Your task to perform on an android device: Show me productivity apps on the Play Store Image 0: 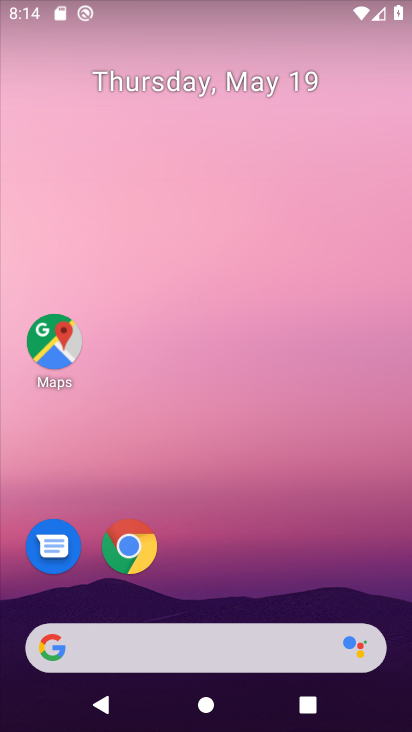
Step 0: drag from (255, 592) to (262, 203)
Your task to perform on an android device: Show me productivity apps on the Play Store Image 1: 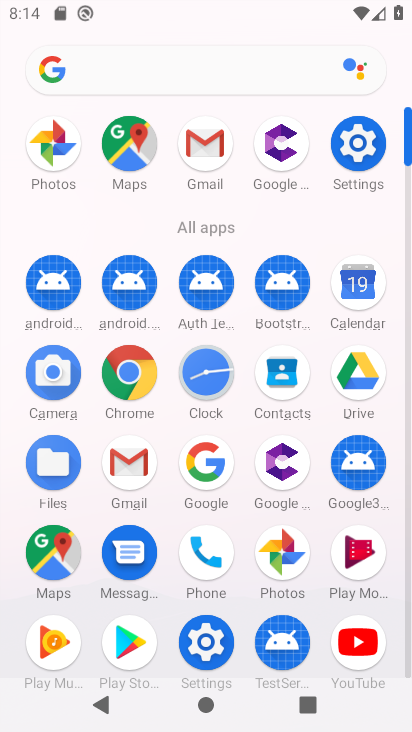
Step 1: click (131, 644)
Your task to perform on an android device: Show me productivity apps on the Play Store Image 2: 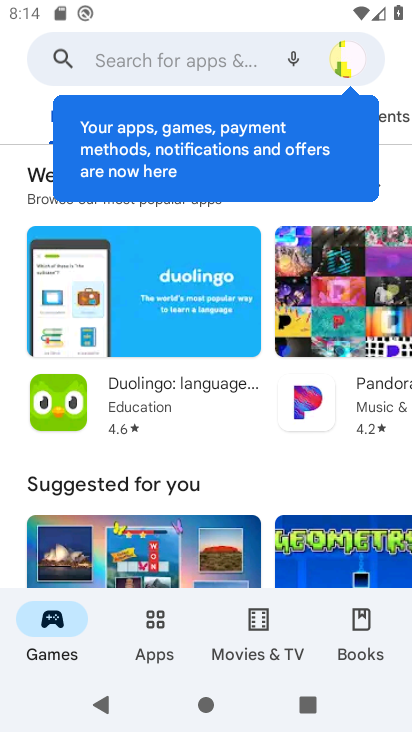
Step 2: click (159, 633)
Your task to perform on an android device: Show me productivity apps on the Play Store Image 3: 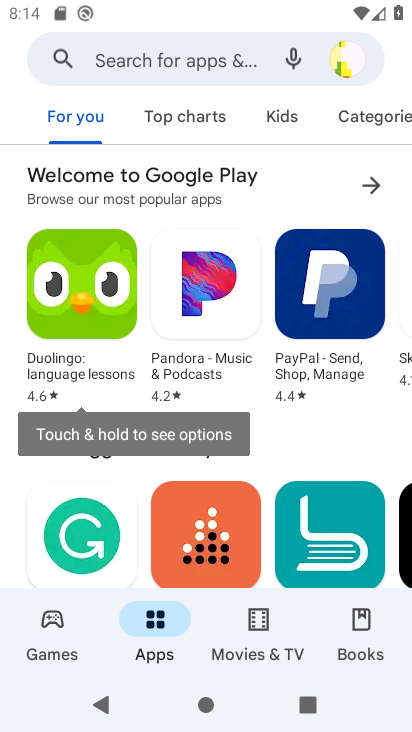
Step 3: drag from (210, 504) to (255, 184)
Your task to perform on an android device: Show me productivity apps on the Play Store Image 4: 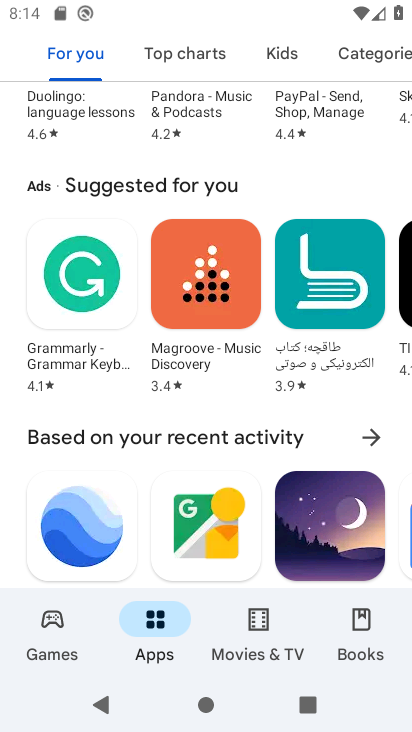
Step 4: drag from (221, 519) to (242, 244)
Your task to perform on an android device: Show me productivity apps on the Play Store Image 5: 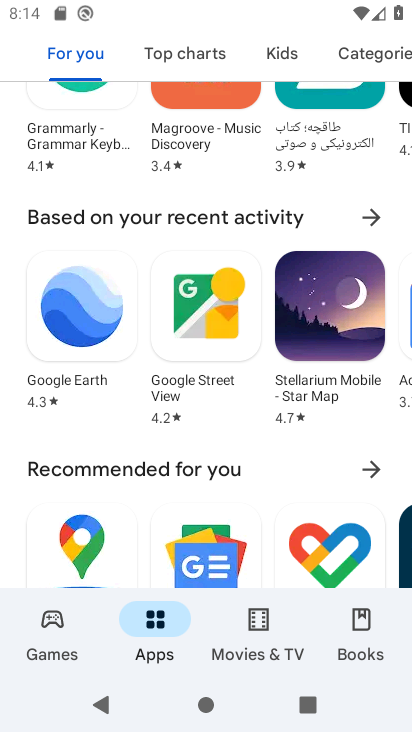
Step 5: drag from (206, 506) to (208, 131)
Your task to perform on an android device: Show me productivity apps on the Play Store Image 6: 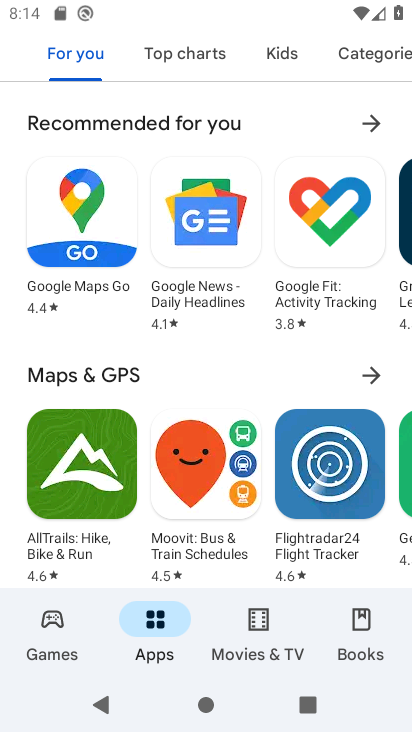
Step 6: click (213, 115)
Your task to perform on an android device: Show me productivity apps on the Play Store Image 7: 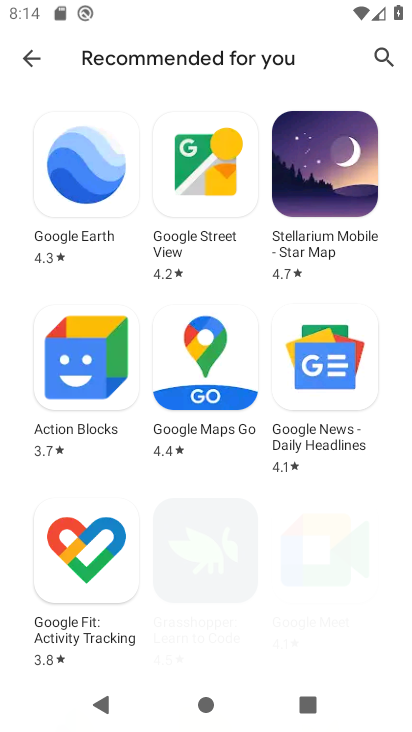
Step 7: drag from (206, 494) to (236, 291)
Your task to perform on an android device: Show me productivity apps on the Play Store Image 8: 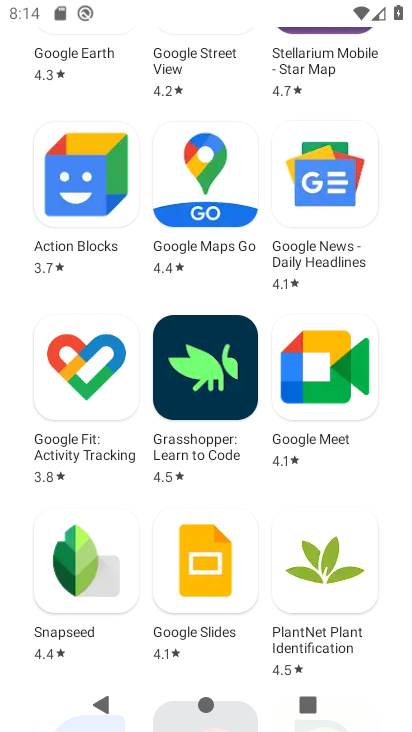
Step 8: drag from (83, 90) to (137, 557)
Your task to perform on an android device: Show me productivity apps on the Play Store Image 9: 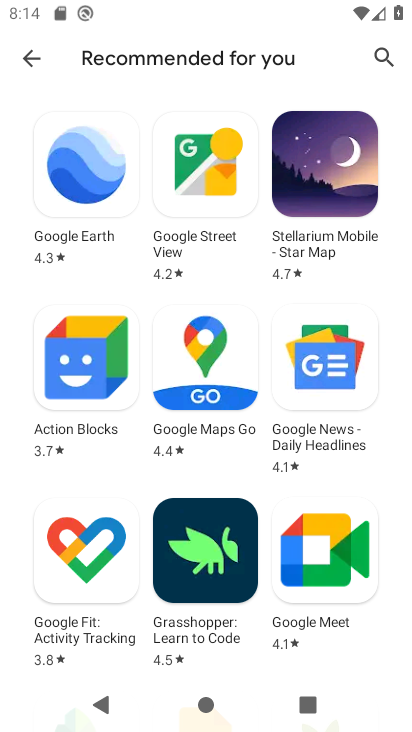
Step 9: click (34, 49)
Your task to perform on an android device: Show me productivity apps on the Play Store Image 10: 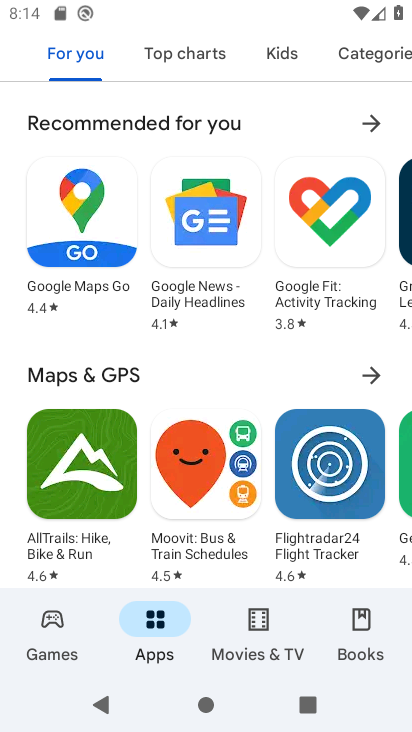
Step 10: task complete